Your task to perform on an android device: turn off translation in the chrome app Image 0: 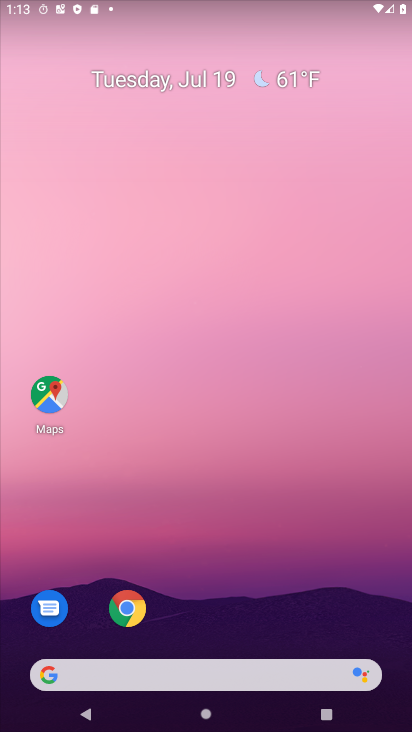
Step 0: drag from (236, 440) to (256, 38)
Your task to perform on an android device: turn off translation in the chrome app Image 1: 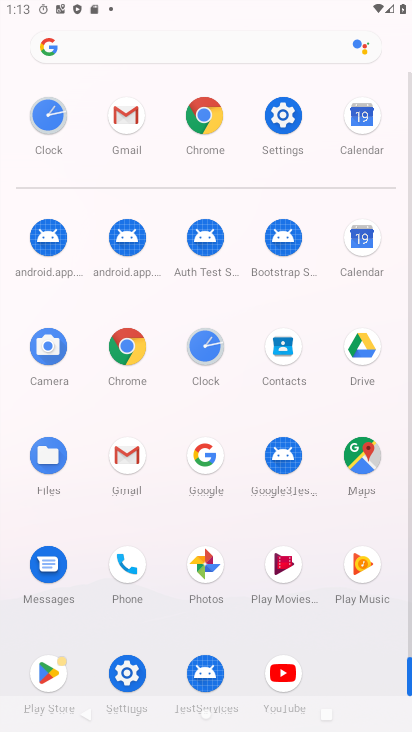
Step 1: click (204, 118)
Your task to perform on an android device: turn off translation in the chrome app Image 2: 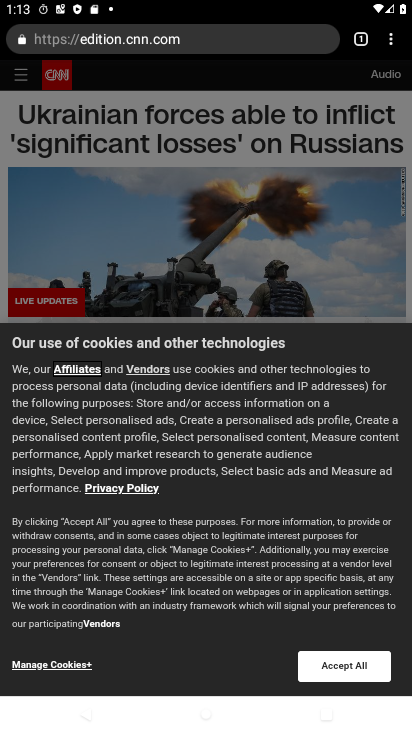
Step 2: drag from (388, 37) to (274, 433)
Your task to perform on an android device: turn off translation in the chrome app Image 3: 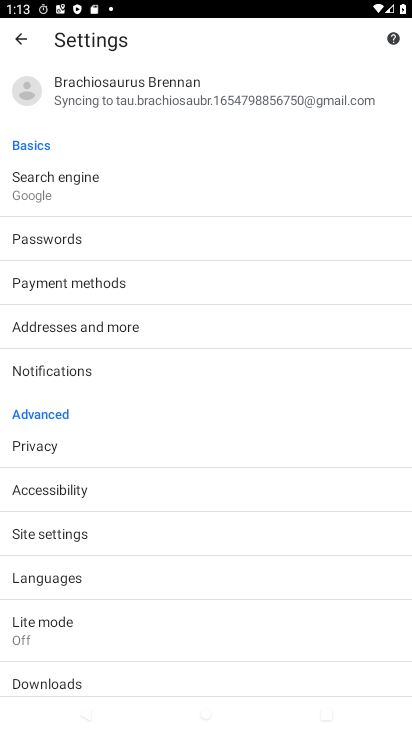
Step 3: click (77, 592)
Your task to perform on an android device: turn off translation in the chrome app Image 4: 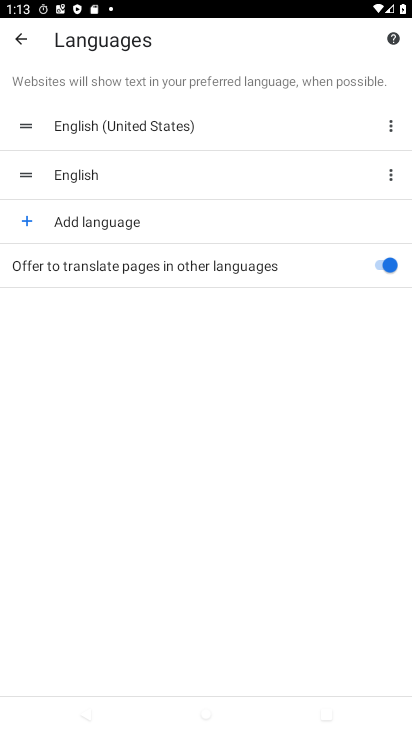
Step 4: click (377, 272)
Your task to perform on an android device: turn off translation in the chrome app Image 5: 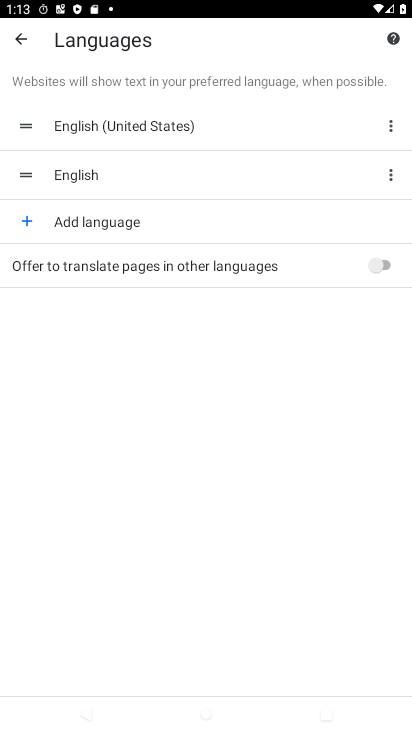
Step 5: task complete